Your task to perform on an android device: Install the Reddit app Image 0: 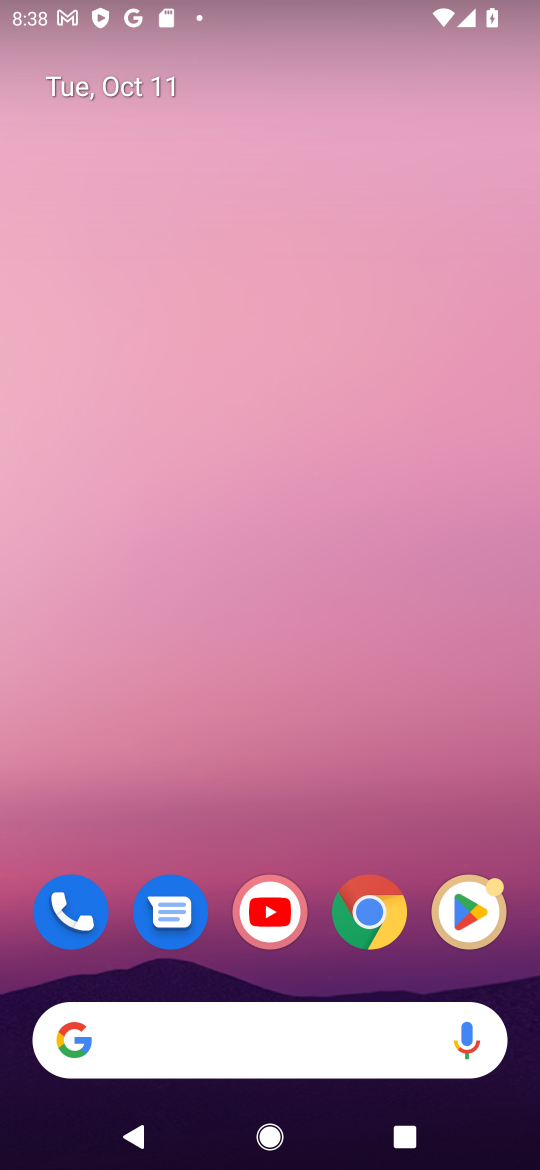
Step 0: click (379, 909)
Your task to perform on an android device: Install the Reddit app Image 1: 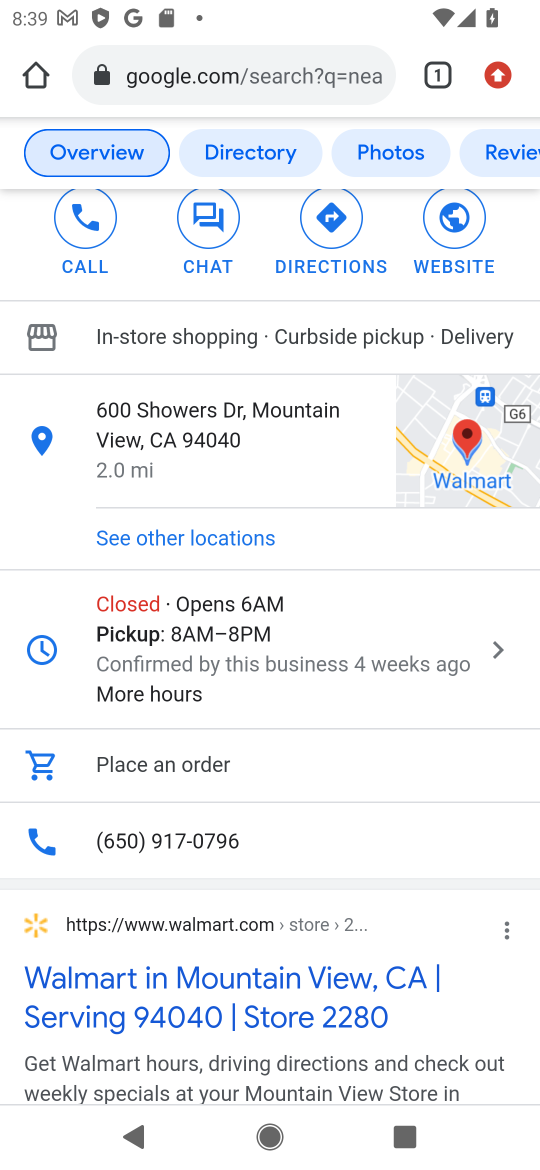
Step 1: click (240, 51)
Your task to perform on an android device: Install the Reddit app Image 2: 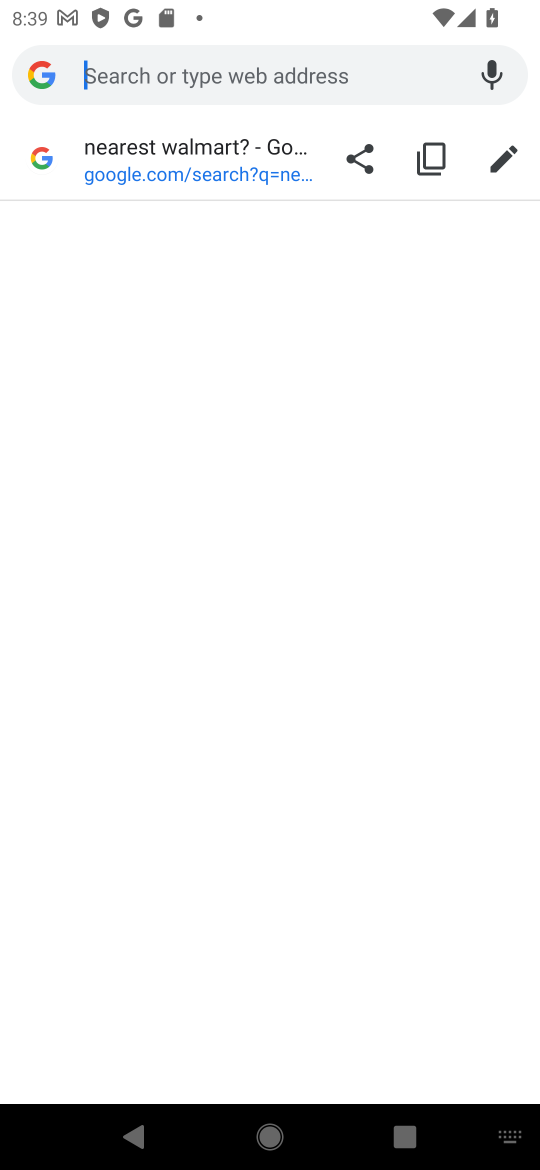
Step 2: press home button
Your task to perform on an android device: Install the Reddit app Image 3: 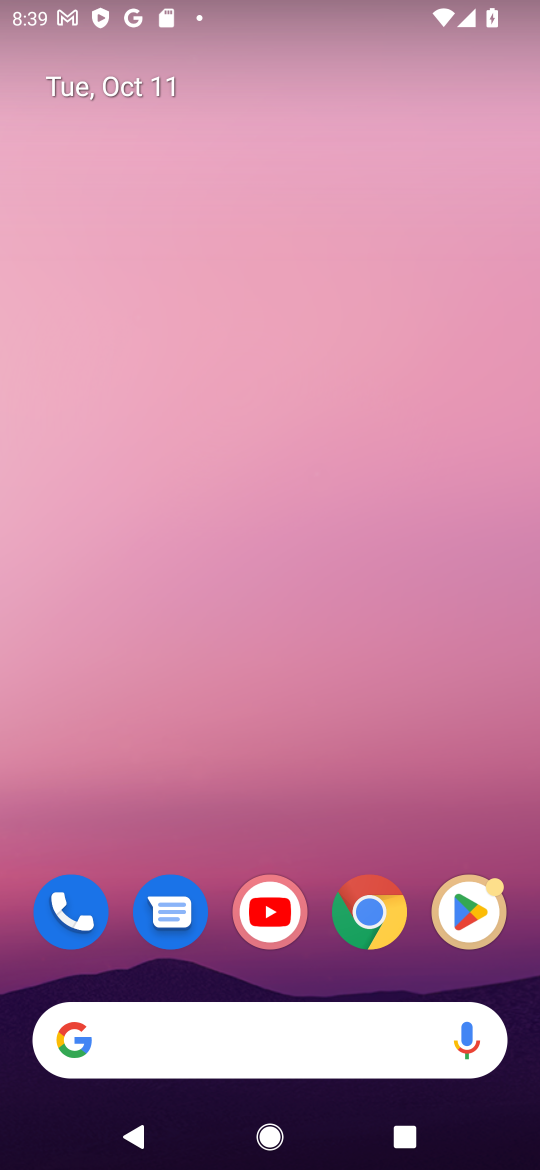
Step 3: click (463, 912)
Your task to perform on an android device: Install the Reddit app Image 4: 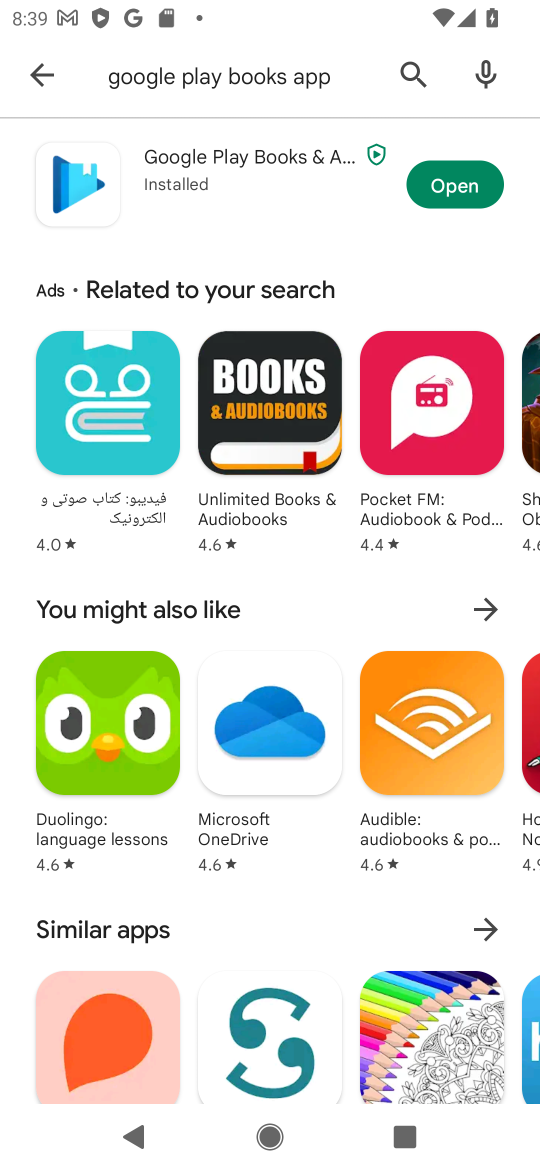
Step 4: click (405, 63)
Your task to perform on an android device: Install the Reddit app Image 5: 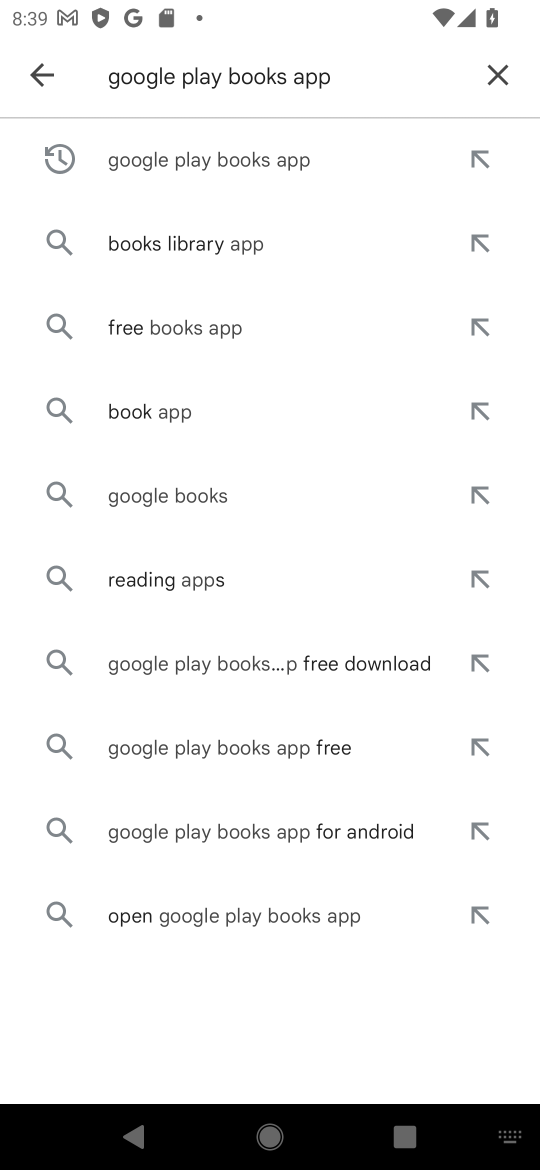
Step 5: click (495, 70)
Your task to perform on an android device: Install the Reddit app Image 6: 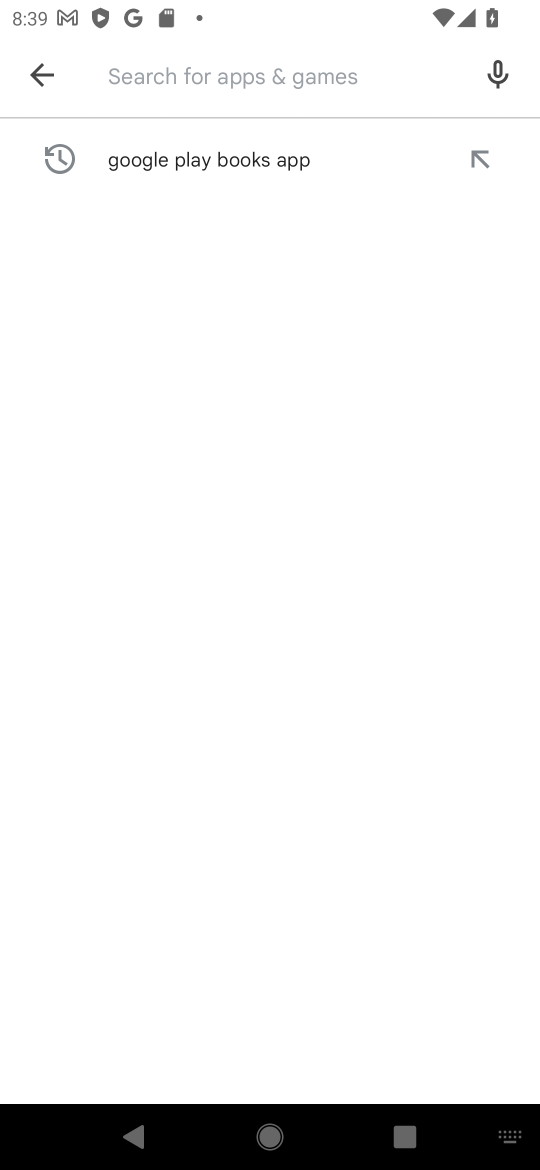
Step 6: type "reddit app"
Your task to perform on an android device: Install the Reddit app Image 7: 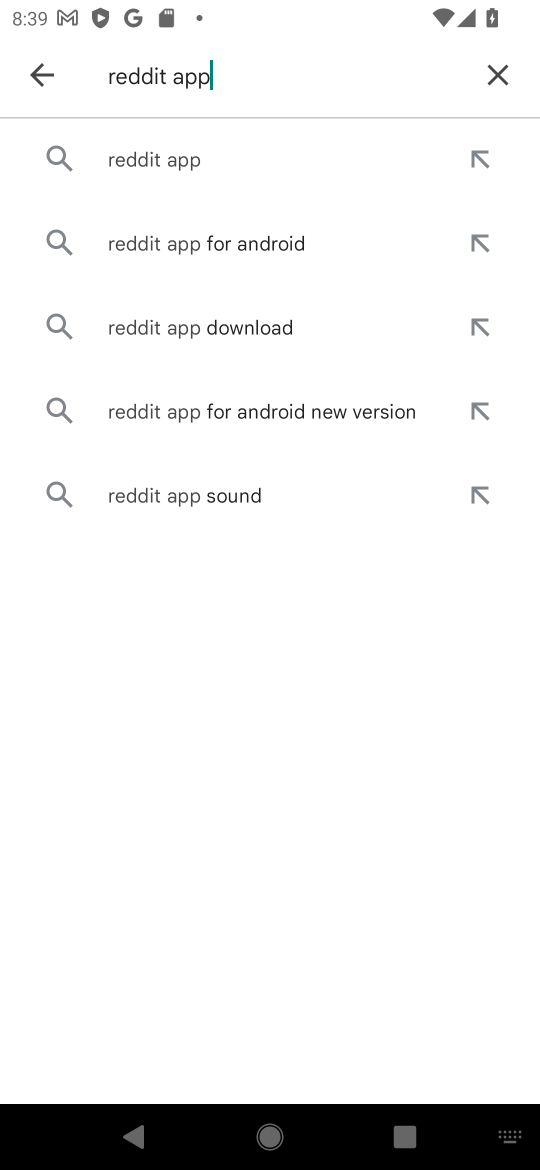
Step 7: click (124, 155)
Your task to perform on an android device: Install the Reddit app Image 8: 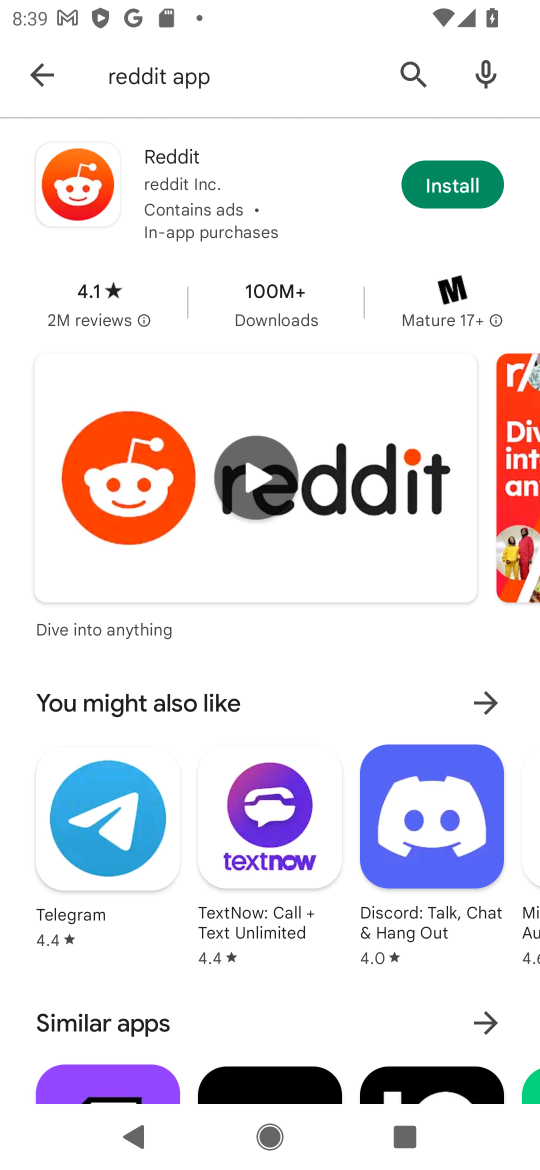
Step 8: click (446, 189)
Your task to perform on an android device: Install the Reddit app Image 9: 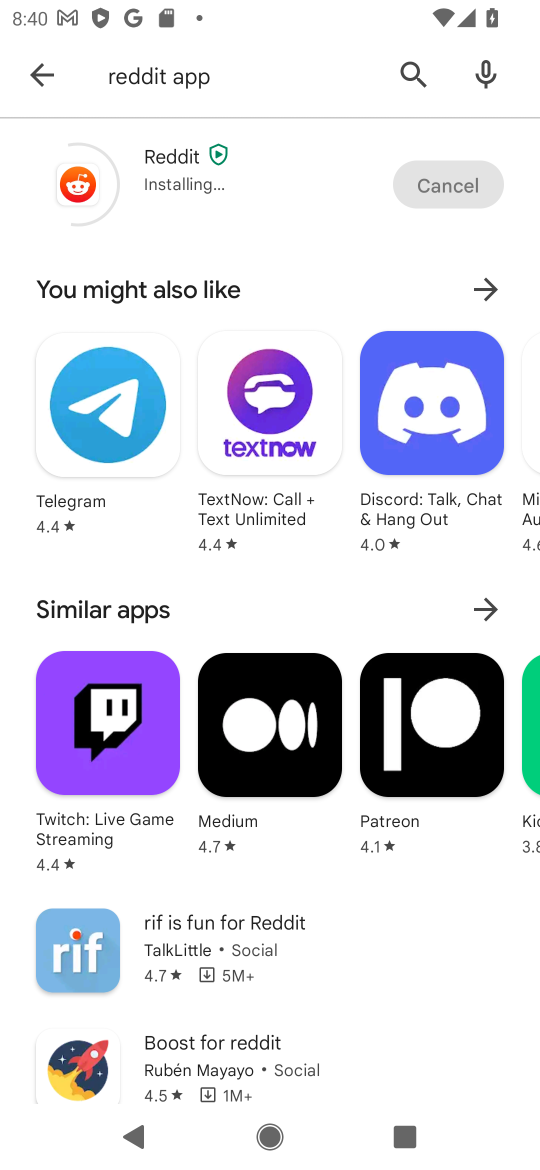
Step 9: click (171, 161)
Your task to perform on an android device: Install the Reddit app Image 10: 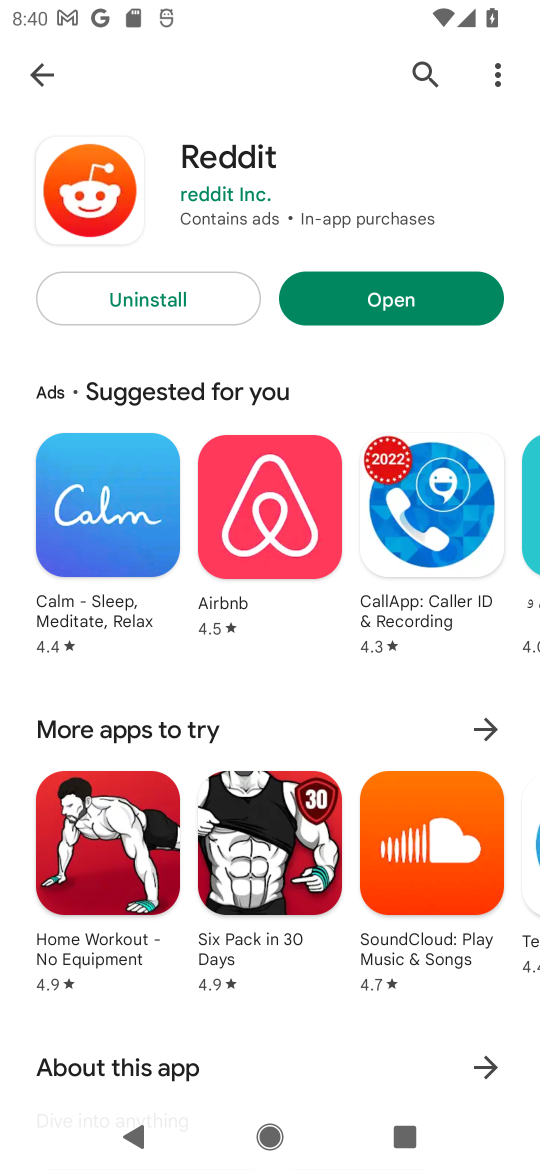
Step 10: click (392, 302)
Your task to perform on an android device: Install the Reddit app Image 11: 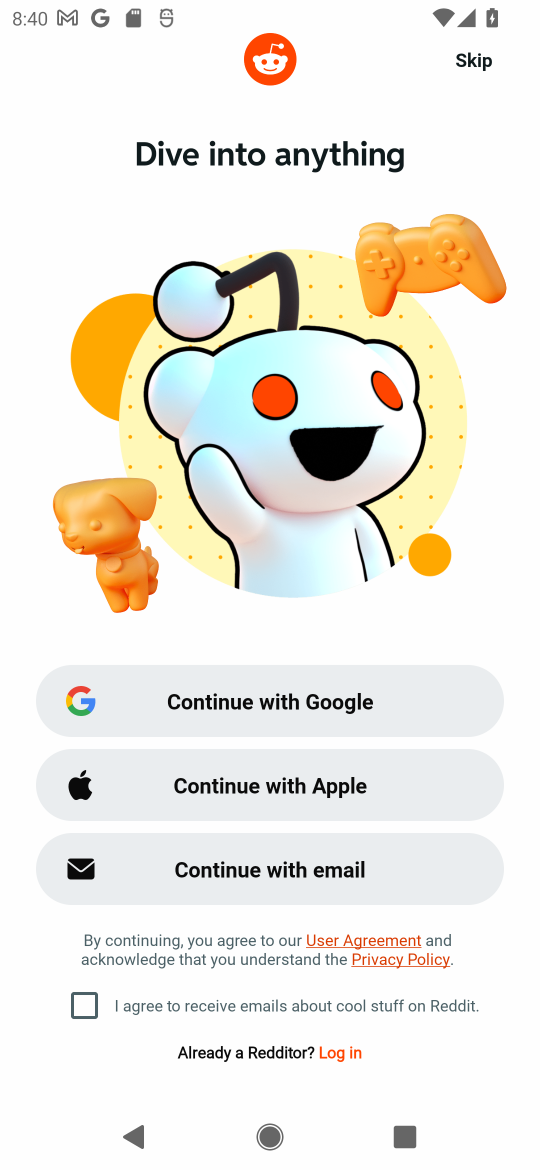
Step 11: click (470, 52)
Your task to perform on an android device: Install the Reddit app Image 12: 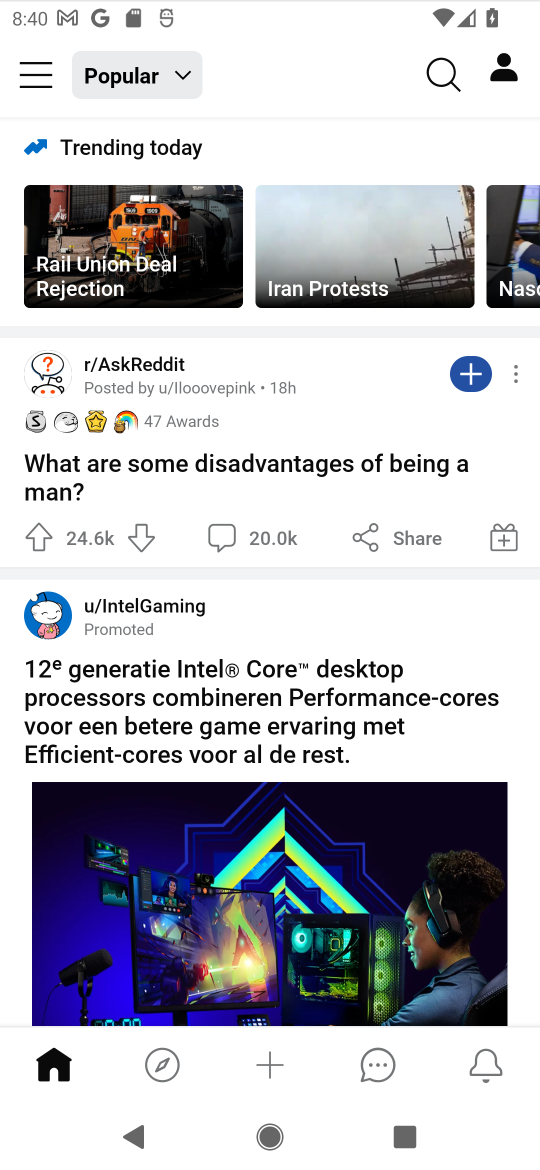
Step 12: task complete